Your task to perform on an android device: toggle airplane mode Image 0: 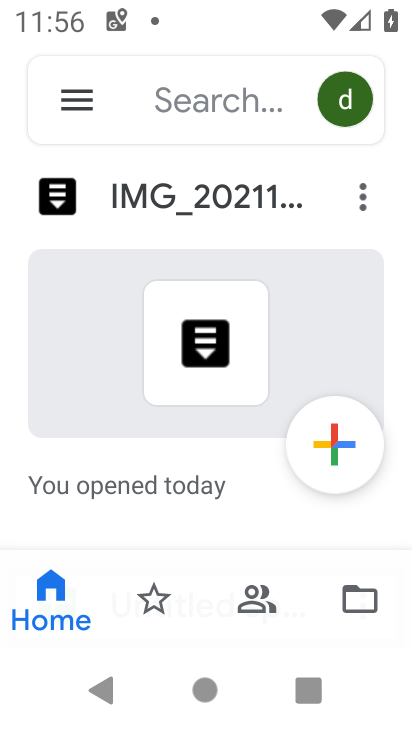
Step 0: drag from (204, 548) to (269, 238)
Your task to perform on an android device: toggle airplane mode Image 1: 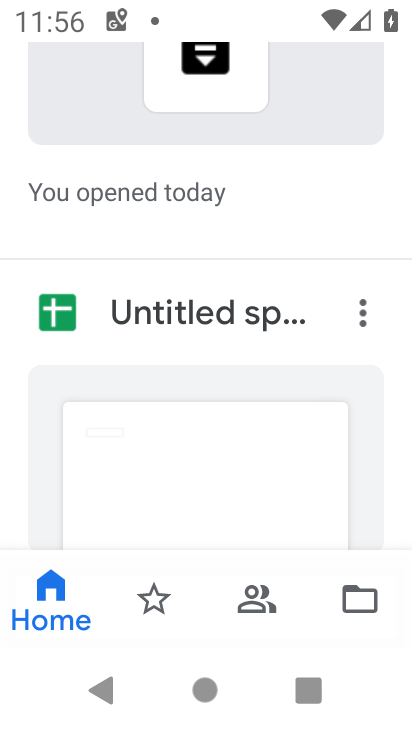
Step 1: drag from (366, 11) to (336, 412)
Your task to perform on an android device: toggle airplane mode Image 2: 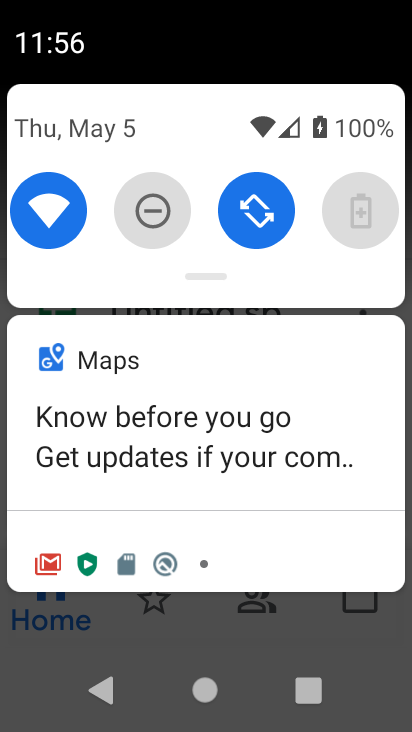
Step 2: drag from (304, 227) to (315, 513)
Your task to perform on an android device: toggle airplane mode Image 3: 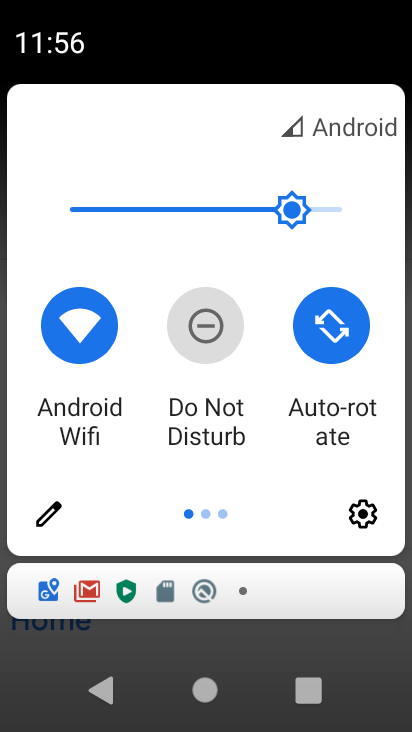
Step 3: drag from (346, 364) to (84, 361)
Your task to perform on an android device: toggle airplane mode Image 4: 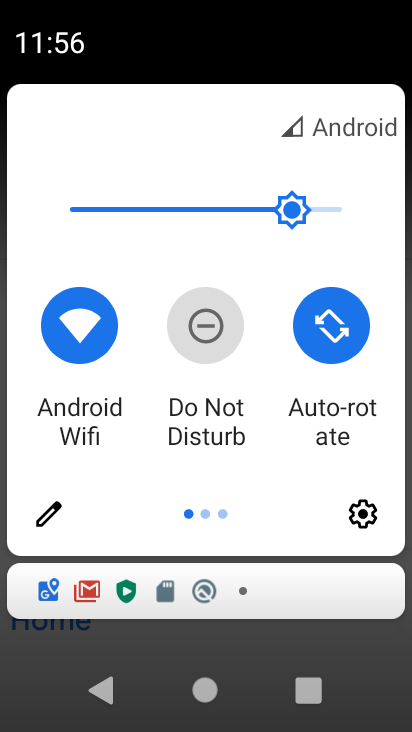
Step 4: drag from (343, 358) to (0, 344)
Your task to perform on an android device: toggle airplane mode Image 5: 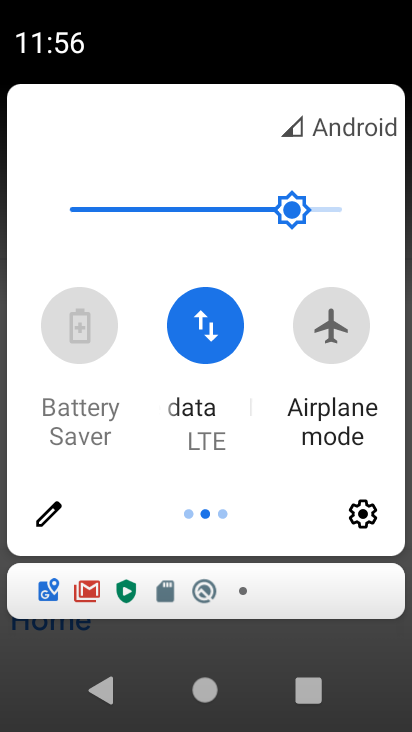
Step 5: click (334, 311)
Your task to perform on an android device: toggle airplane mode Image 6: 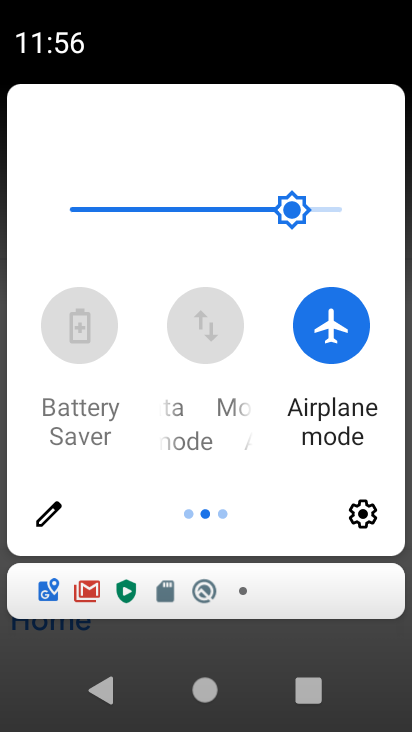
Step 6: task complete